Your task to perform on an android device: Search for seafood restaurants on Google Maps Image 0: 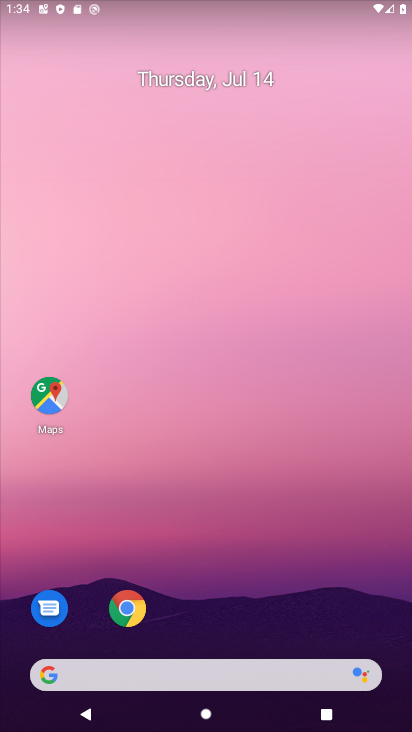
Step 0: click (46, 394)
Your task to perform on an android device: Search for seafood restaurants on Google Maps Image 1: 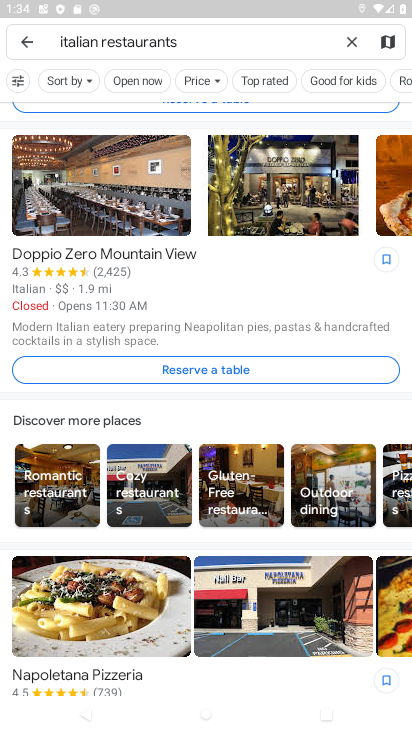
Step 1: click (346, 43)
Your task to perform on an android device: Search for seafood restaurants on Google Maps Image 2: 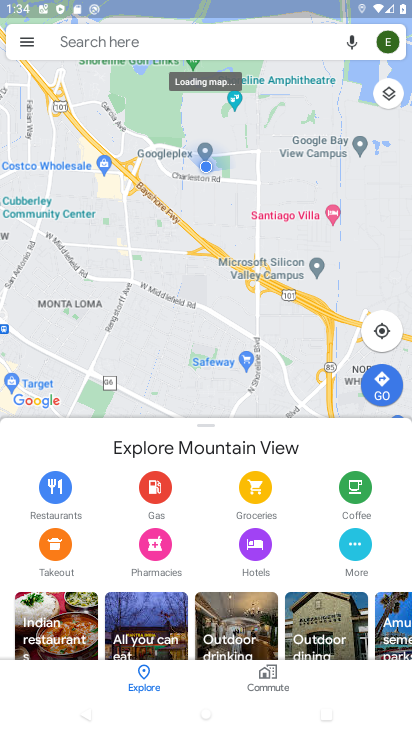
Step 2: click (95, 41)
Your task to perform on an android device: Search for seafood restaurants on Google Maps Image 3: 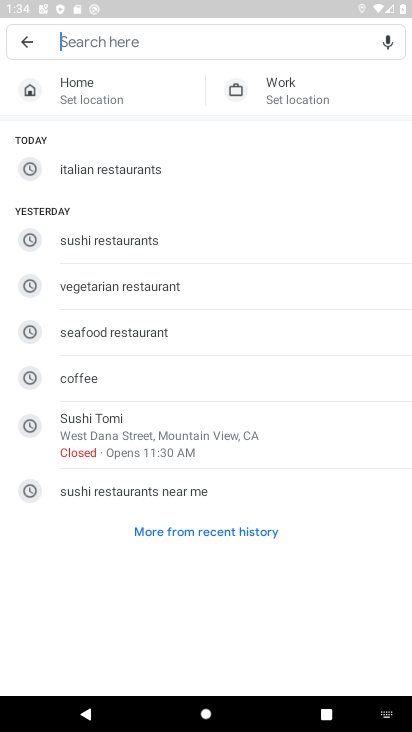
Step 3: type "seafood restaurants"
Your task to perform on an android device: Search for seafood restaurants on Google Maps Image 4: 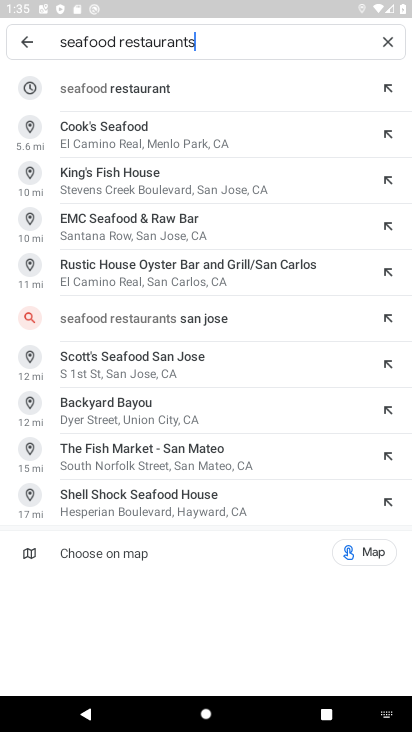
Step 4: click (138, 93)
Your task to perform on an android device: Search for seafood restaurants on Google Maps Image 5: 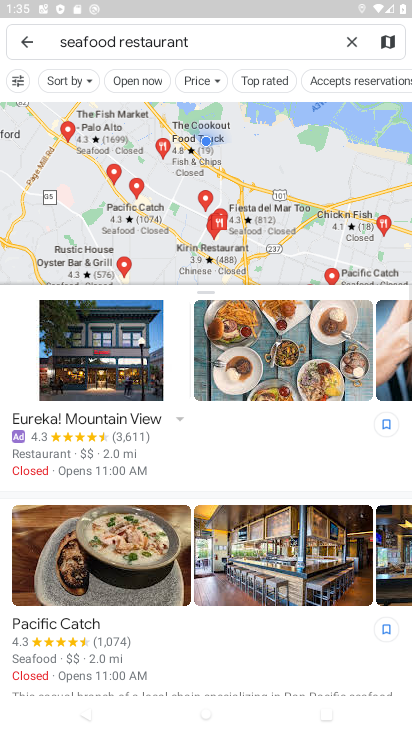
Step 5: task complete